Your task to perform on an android device: Check the news Image 0: 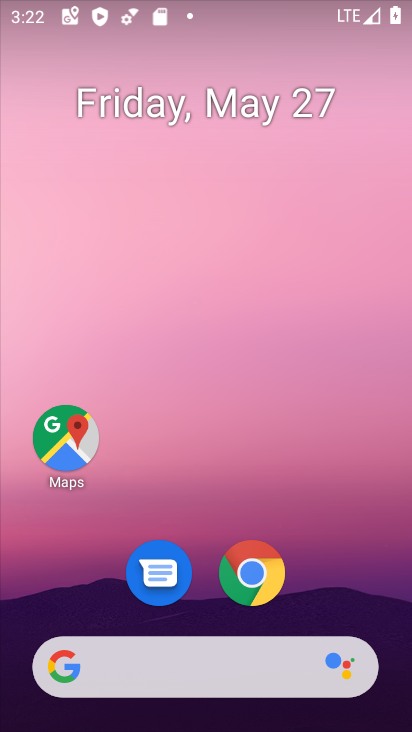
Step 0: click (258, 681)
Your task to perform on an android device: Check the news Image 1: 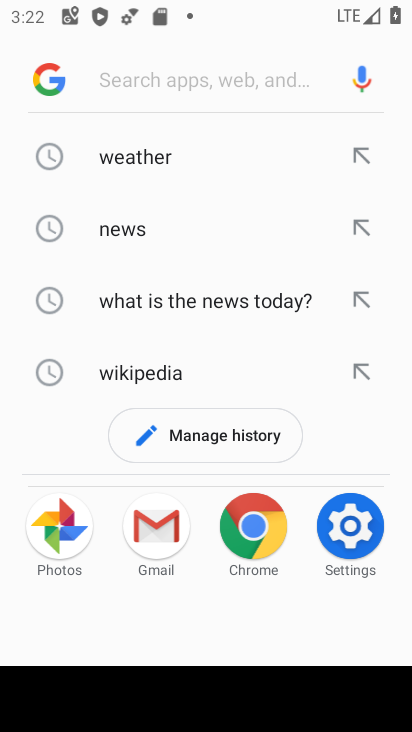
Step 1: click (120, 235)
Your task to perform on an android device: Check the news Image 2: 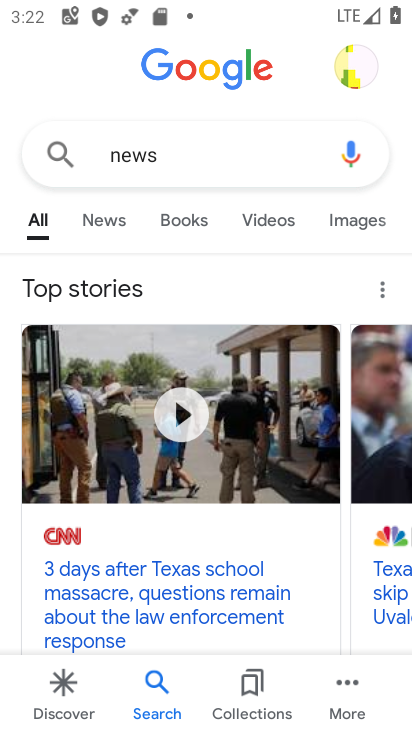
Step 2: task complete